Your task to perform on an android device: Open Reddit.com Image 0: 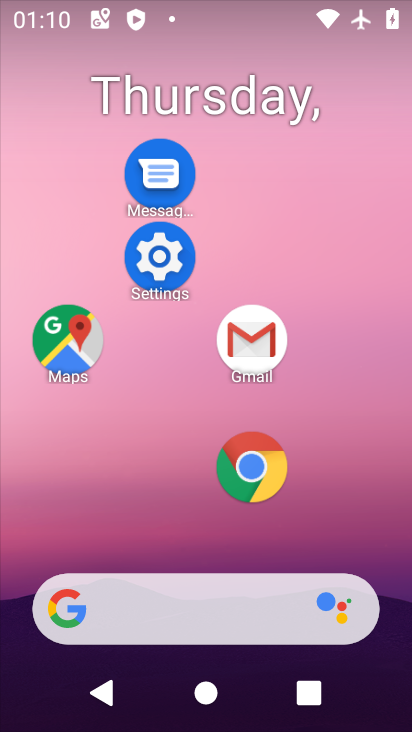
Step 0: drag from (201, 563) to (201, 78)
Your task to perform on an android device: Open Reddit.com Image 1: 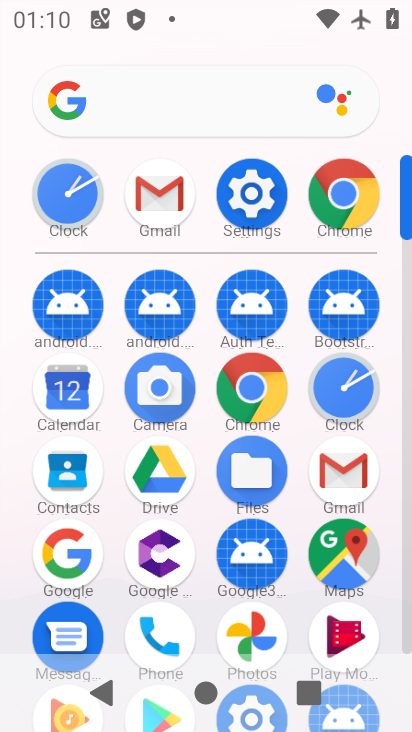
Step 1: click (281, 103)
Your task to perform on an android device: Open Reddit.com Image 2: 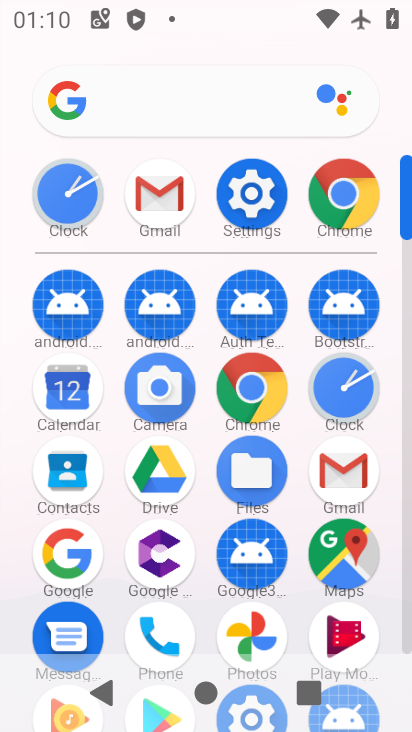
Step 2: drag from (187, 537) to (295, 166)
Your task to perform on an android device: Open Reddit.com Image 3: 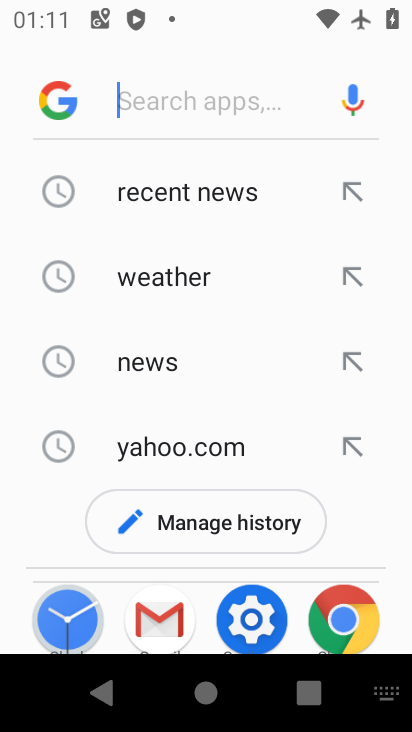
Step 3: type "reddit.com"
Your task to perform on an android device: Open Reddit.com Image 4: 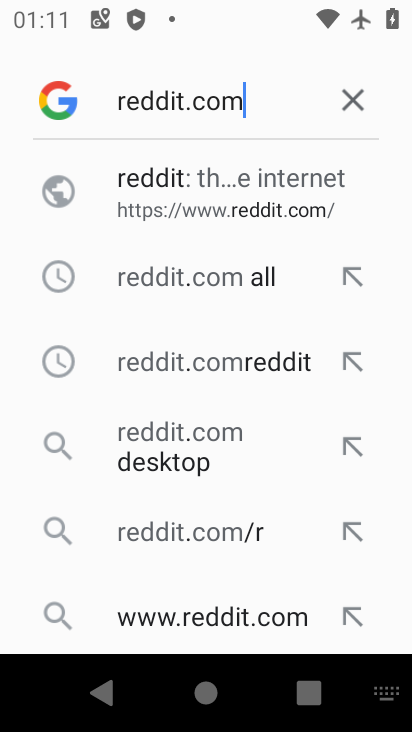
Step 4: click (198, 199)
Your task to perform on an android device: Open Reddit.com Image 5: 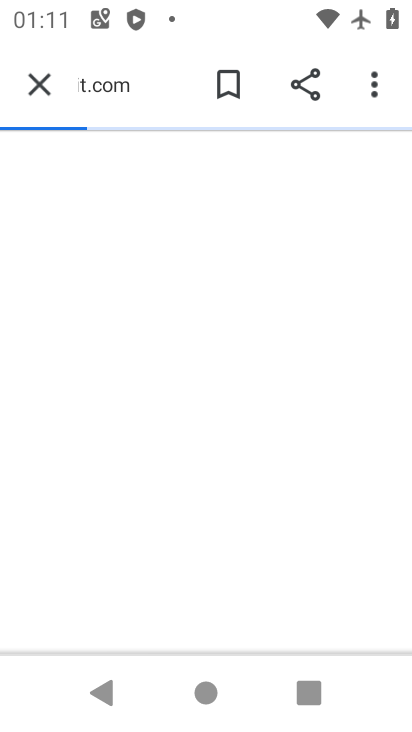
Step 5: task complete